Your task to perform on an android device: turn on wifi Image 0: 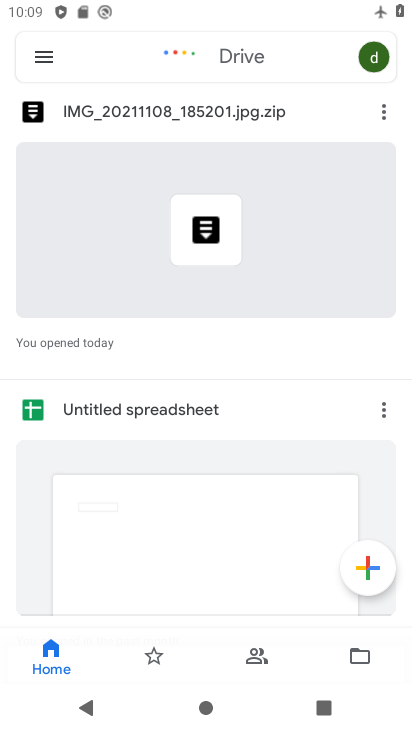
Step 0: press home button
Your task to perform on an android device: turn on wifi Image 1: 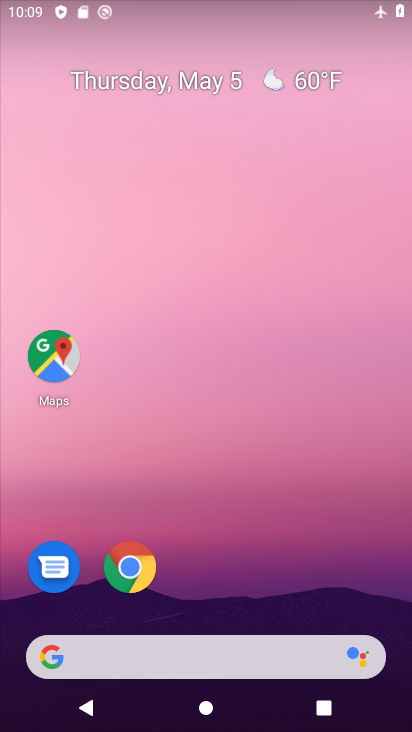
Step 1: drag from (219, 604) to (221, 179)
Your task to perform on an android device: turn on wifi Image 2: 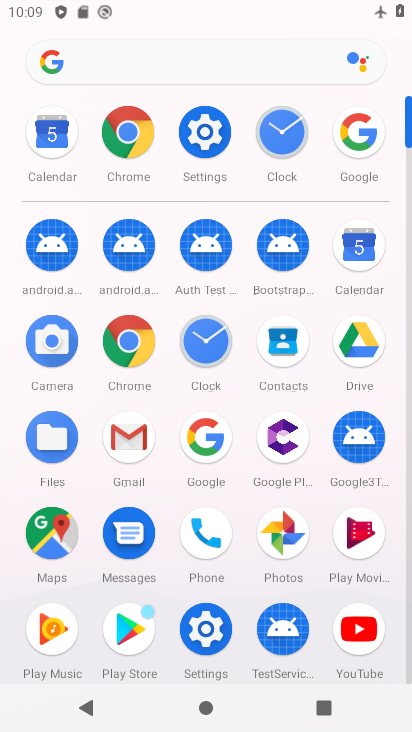
Step 2: click (200, 131)
Your task to perform on an android device: turn on wifi Image 3: 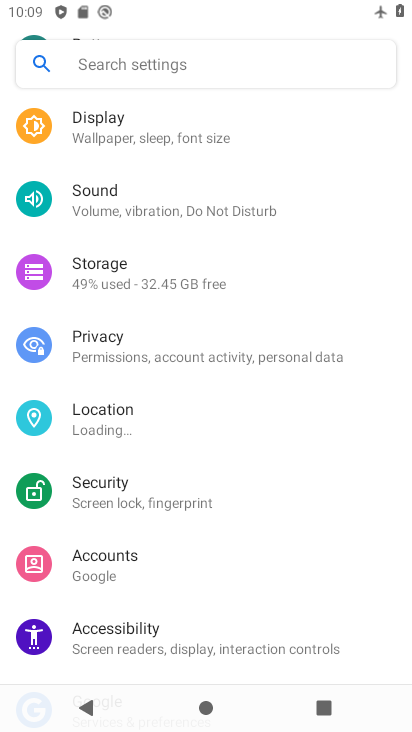
Step 3: drag from (200, 133) to (212, 517)
Your task to perform on an android device: turn on wifi Image 4: 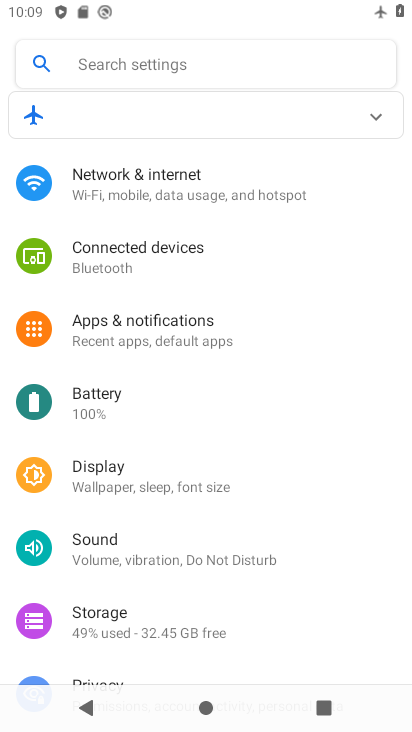
Step 4: click (174, 182)
Your task to perform on an android device: turn on wifi Image 5: 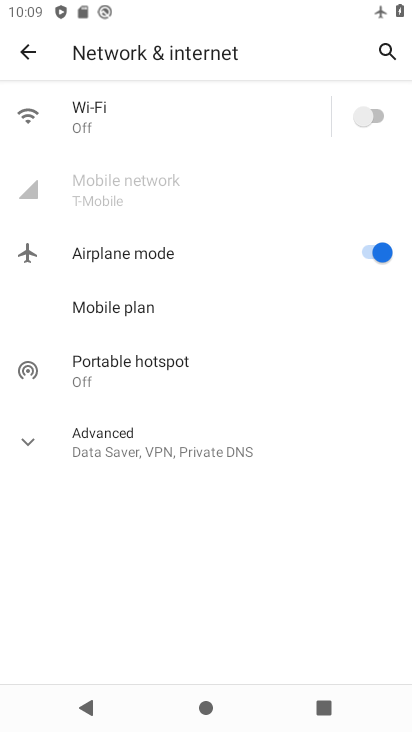
Step 5: click (381, 117)
Your task to perform on an android device: turn on wifi Image 6: 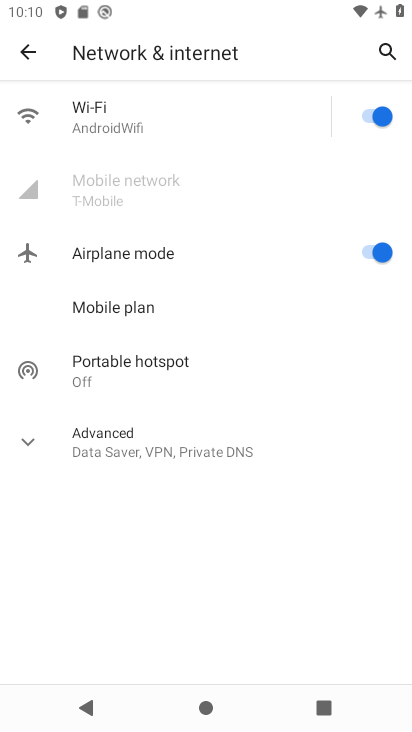
Step 6: task complete